Your task to perform on an android device: Is it going to rain today? Image 0: 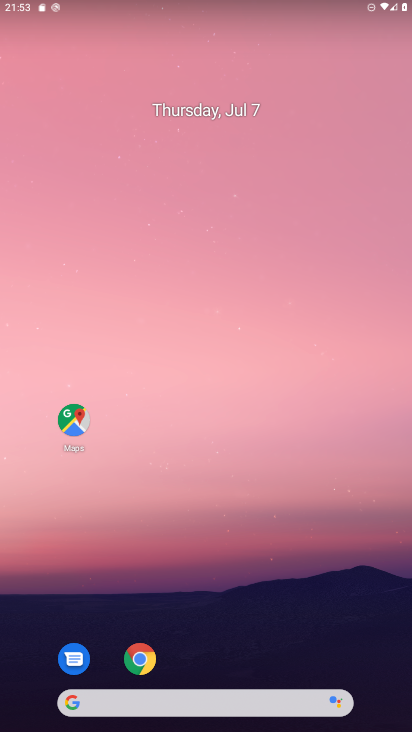
Step 0: drag from (251, 627) to (220, 123)
Your task to perform on an android device: Is it going to rain today? Image 1: 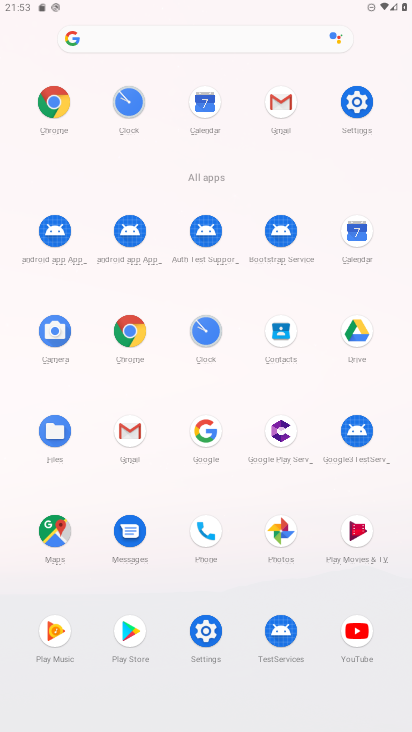
Step 1: click (211, 433)
Your task to perform on an android device: Is it going to rain today? Image 2: 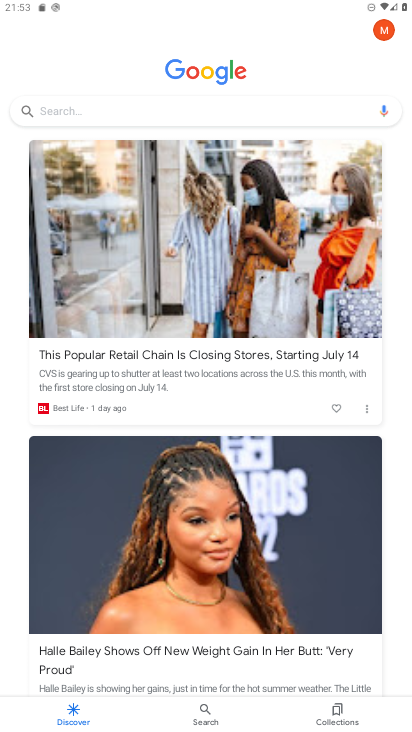
Step 2: click (97, 110)
Your task to perform on an android device: Is it going to rain today? Image 3: 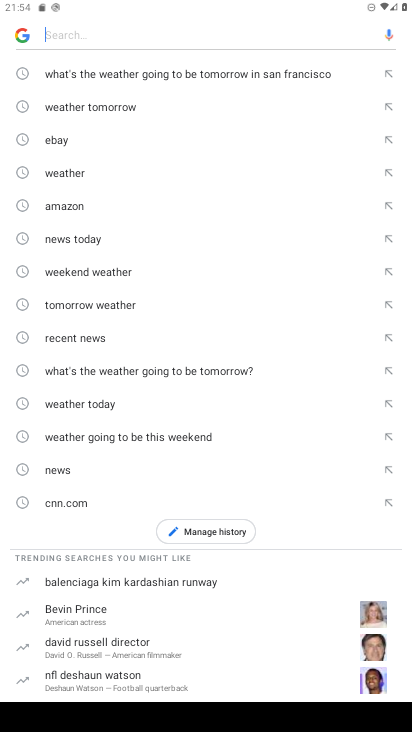
Step 3: type "is it going to rain today"
Your task to perform on an android device: Is it going to rain today? Image 4: 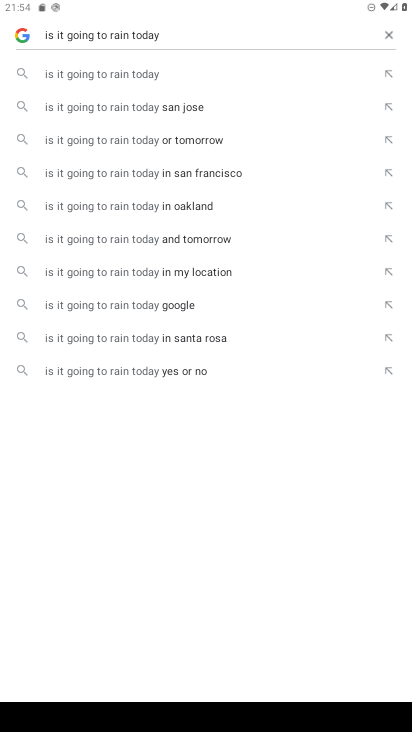
Step 4: click (130, 72)
Your task to perform on an android device: Is it going to rain today? Image 5: 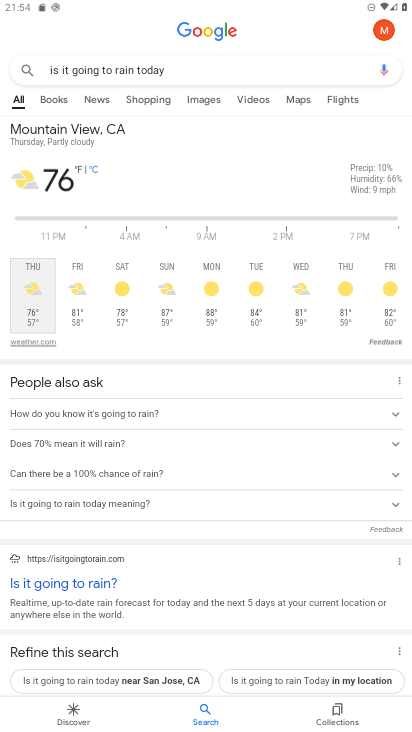
Step 5: task complete